Your task to perform on an android device: toggle data saver in the chrome app Image 0: 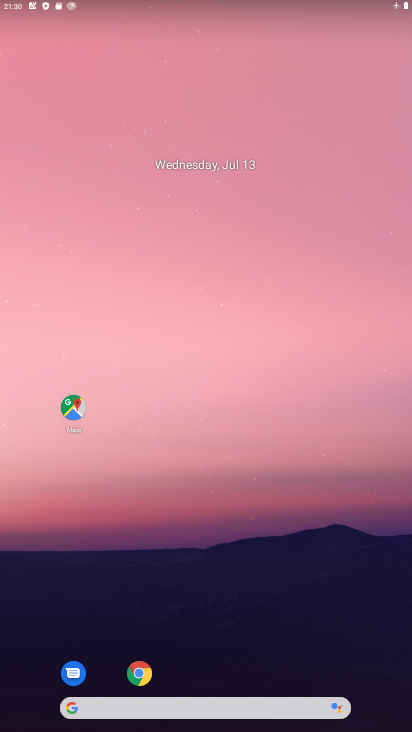
Step 0: drag from (203, 616) to (330, 85)
Your task to perform on an android device: toggle data saver in the chrome app Image 1: 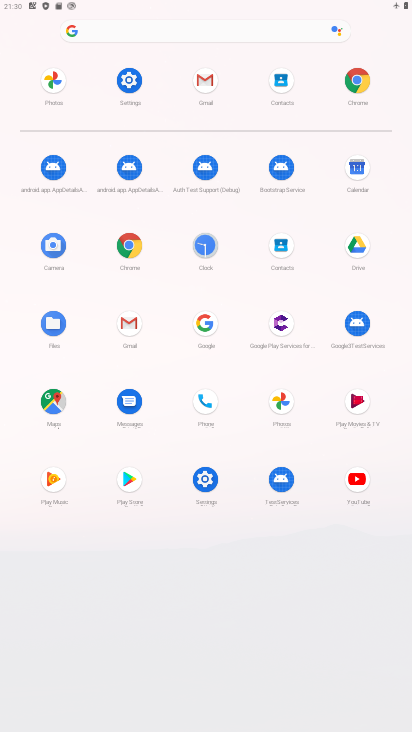
Step 1: click (131, 241)
Your task to perform on an android device: toggle data saver in the chrome app Image 2: 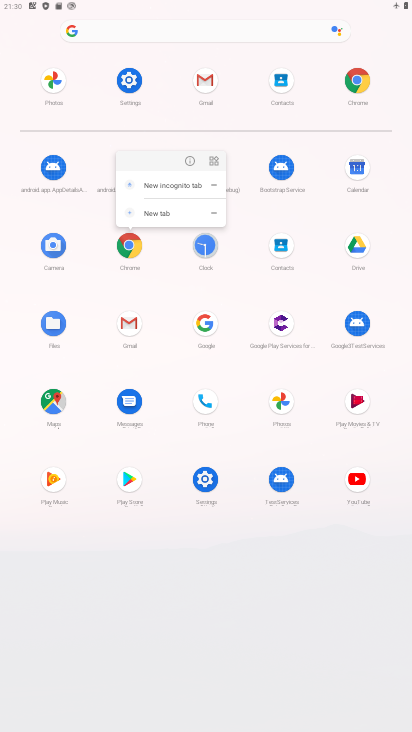
Step 2: click (186, 160)
Your task to perform on an android device: toggle data saver in the chrome app Image 3: 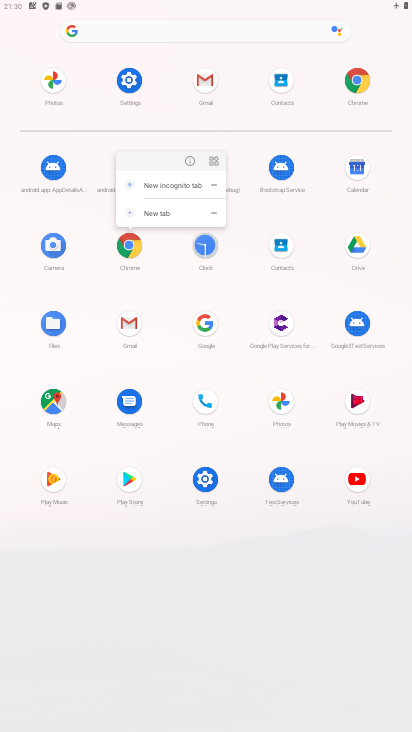
Step 3: click (186, 160)
Your task to perform on an android device: toggle data saver in the chrome app Image 4: 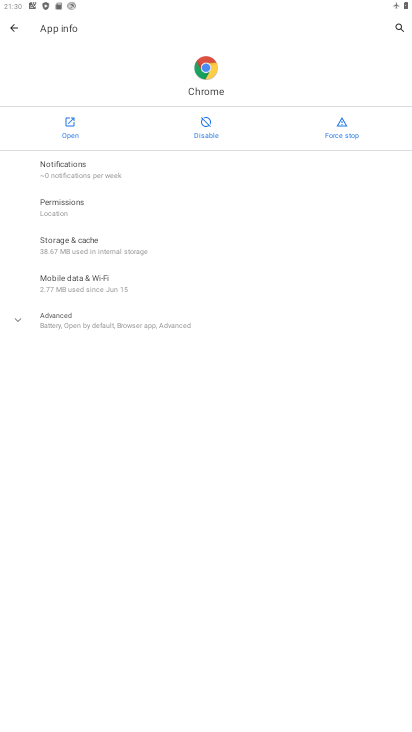
Step 4: click (73, 127)
Your task to perform on an android device: toggle data saver in the chrome app Image 5: 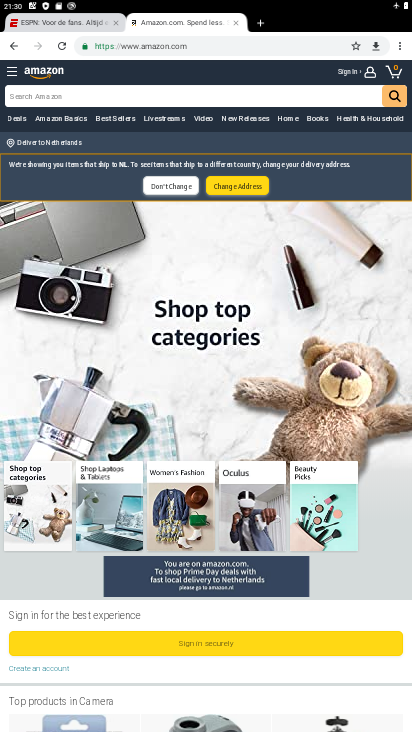
Step 5: click (399, 43)
Your task to perform on an android device: toggle data saver in the chrome app Image 6: 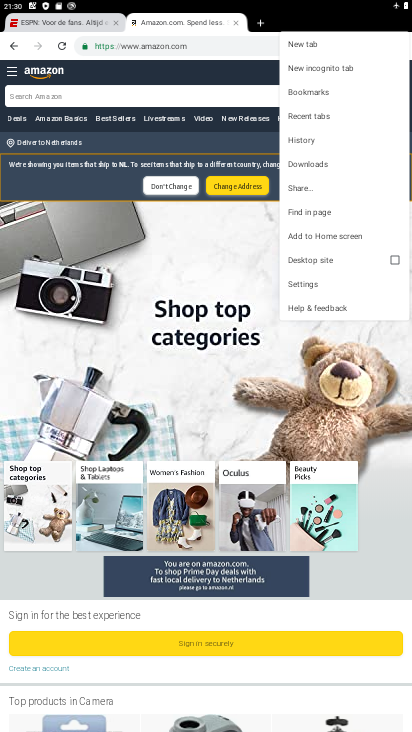
Step 6: click (294, 276)
Your task to perform on an android device: toggle data saver in the chrome app Image 7: 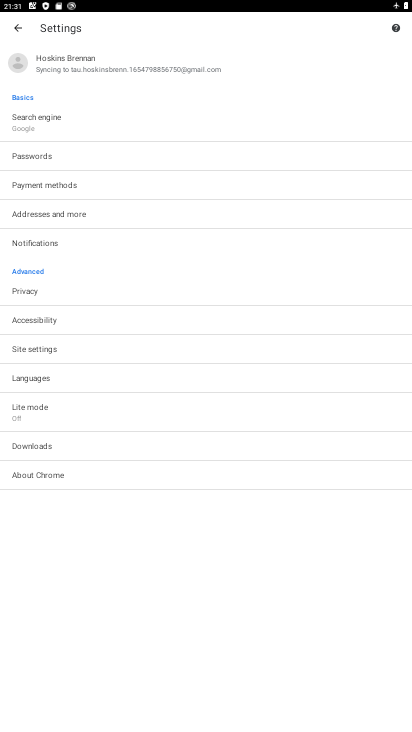
Step 7: drag from (200, 483) to (213, 250)
Your task to perform on an android device: toggle data saver in the chrome app Image 8: 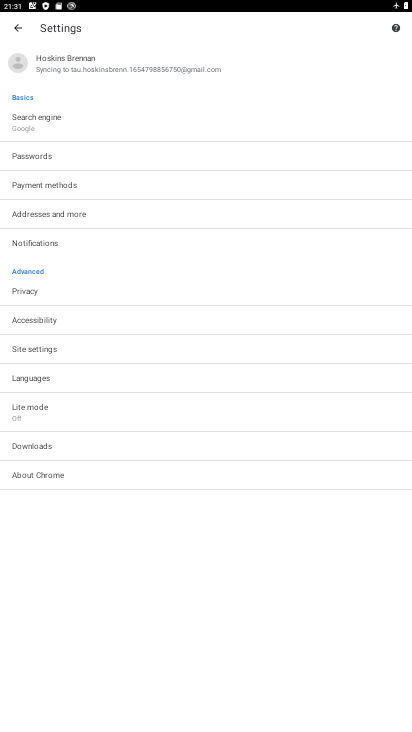
Step 8: click (30, 409)
Your task to perform on an android device: toggle data saver in the chrome app Image 9: 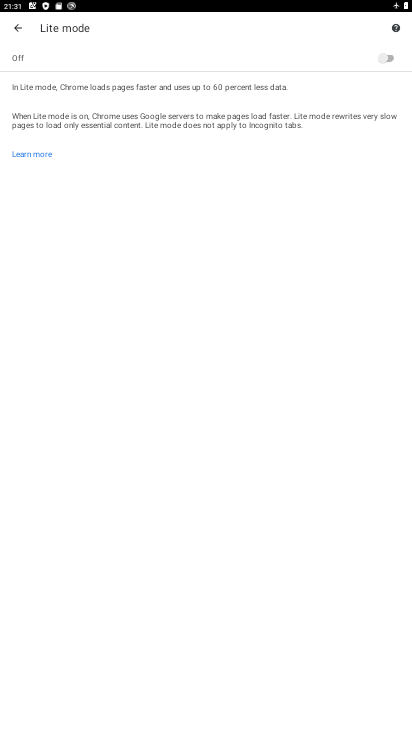
Step 9: click (349, 53)
Your task to perform on an android device: toggle data saver in the chrome app Image 10: 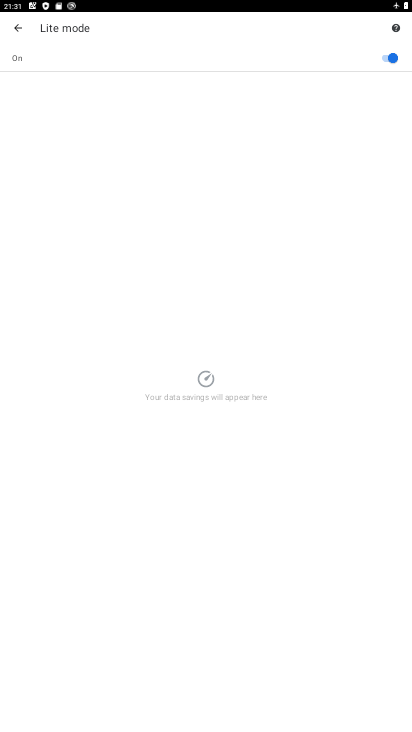
Step 10: task complete